Your task to perform on an android device: Open ESPN.com Image 0: 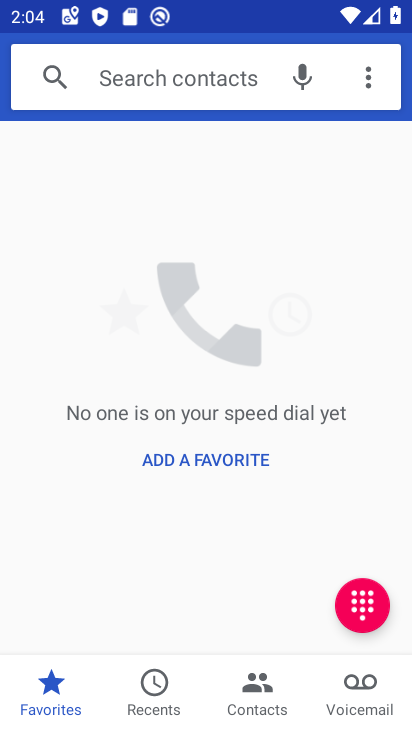
Step 0: press home button
Your task to perform on an android device: Open ESPN.com Image 1: 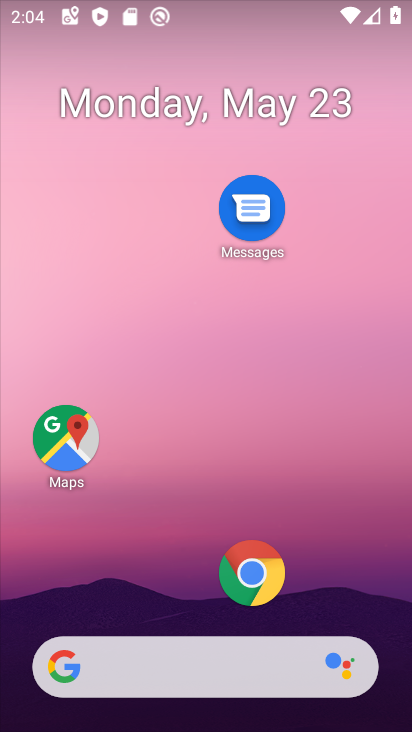
Step 1: drag from (278, 495) to (311, 22)
Your task to perform on an android device: Open ESPN.com Image 2: 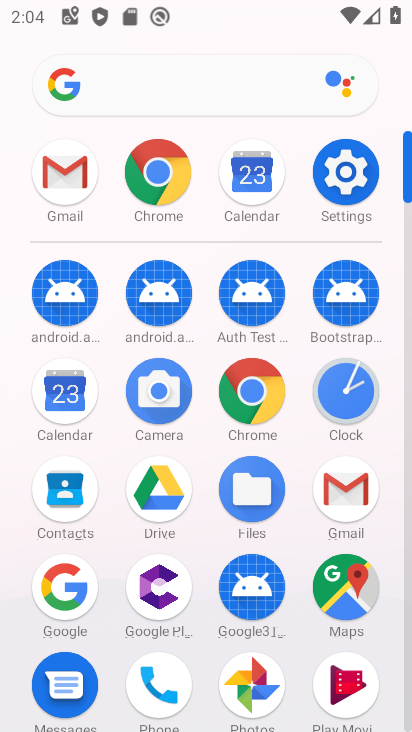
Step 2: click (252, 378)
Your task to perform on an android device: Open ESPN.com Image 3: 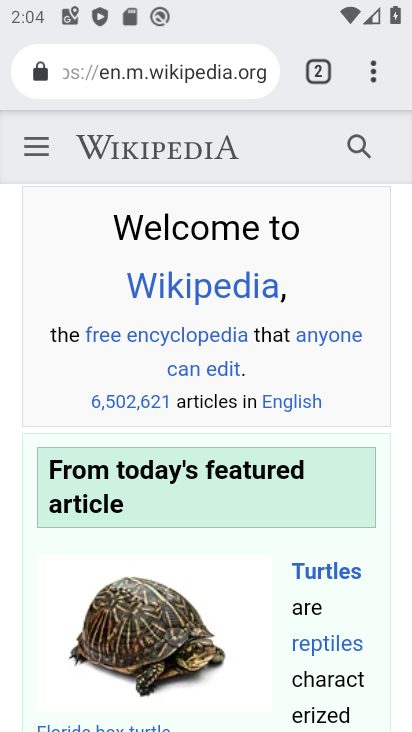
Step 3: click (219, 71)
Your task to perform on an android device: Open ESPN.com Image 4: 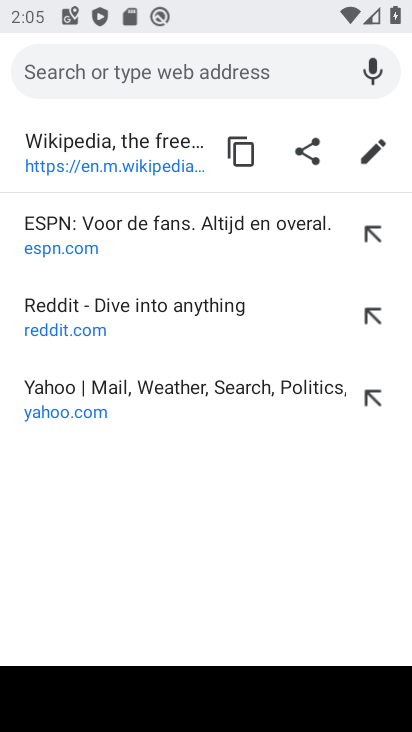
Step 4: click (142, 232)
Your task to perform on an android device: Open ESPN.com Image 5: 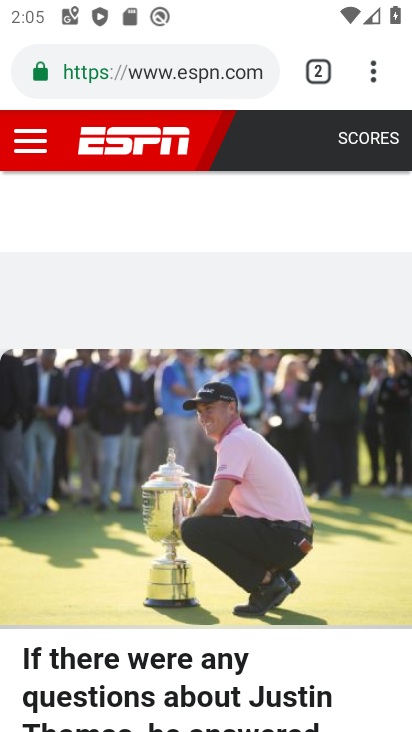
Step 5: task complete